Your task to perform on an android device: uninstall "Viber Messenger" Image 0: 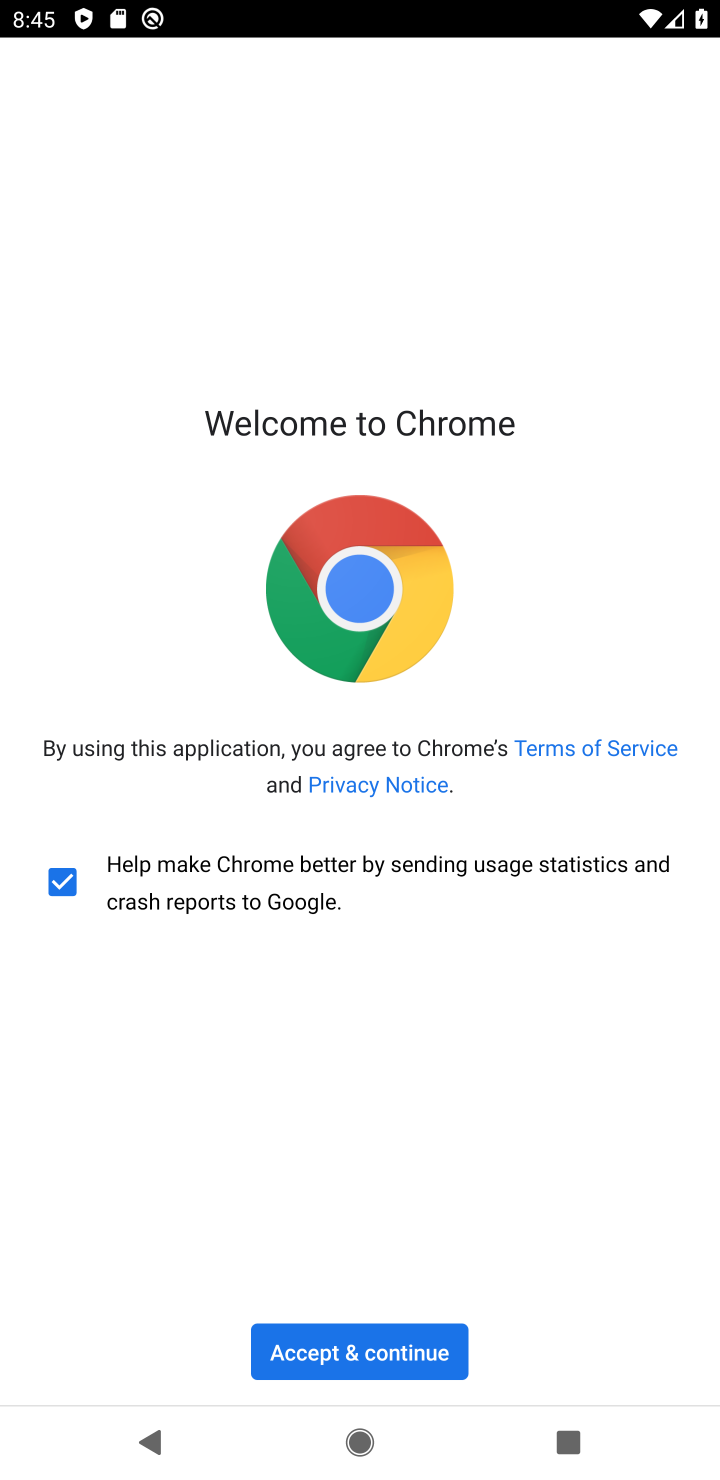
Step 0: press home button
Your task to perform on an android device: uninstall "Viber Messenger" Image 1: 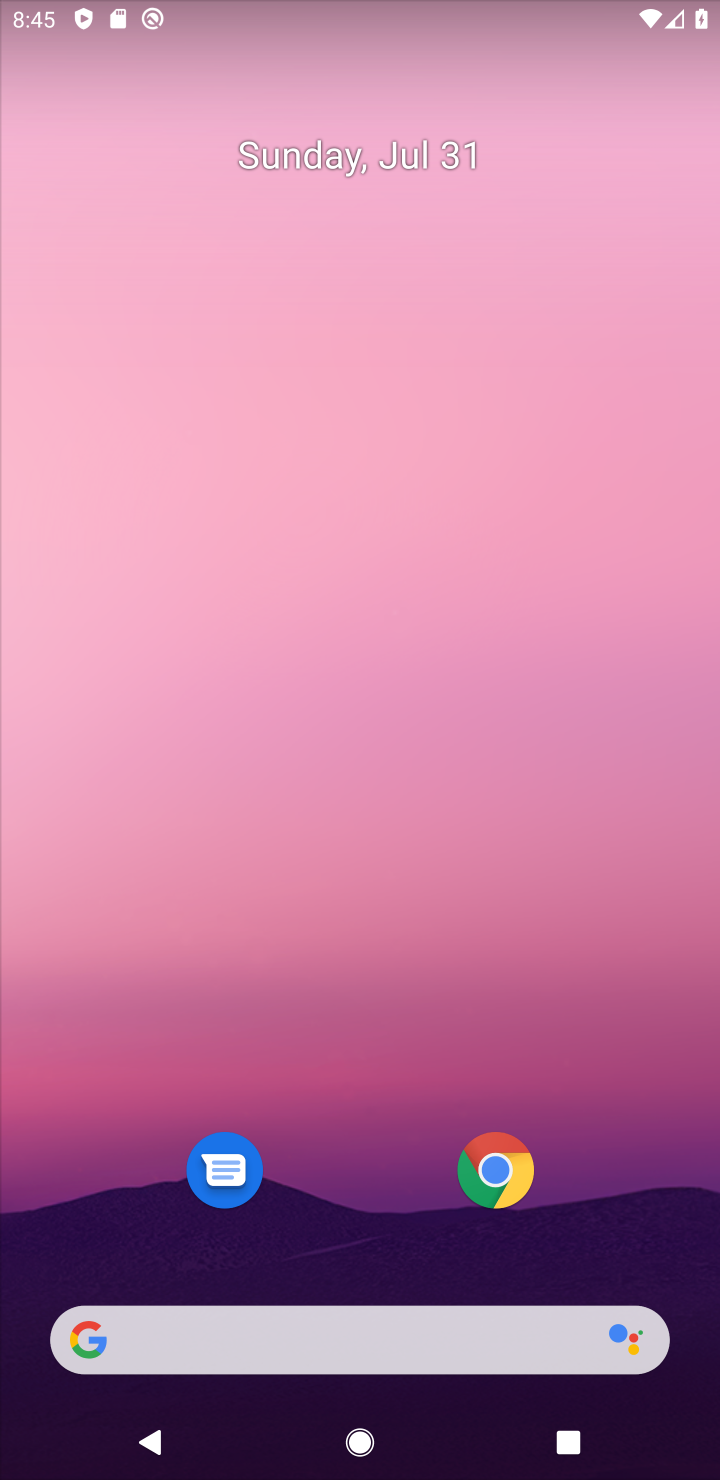
Step 1: drag from (501, 666) to (369, 32)
Your task to perform on an android device: uninstall "Viber Messenger" Image 2: 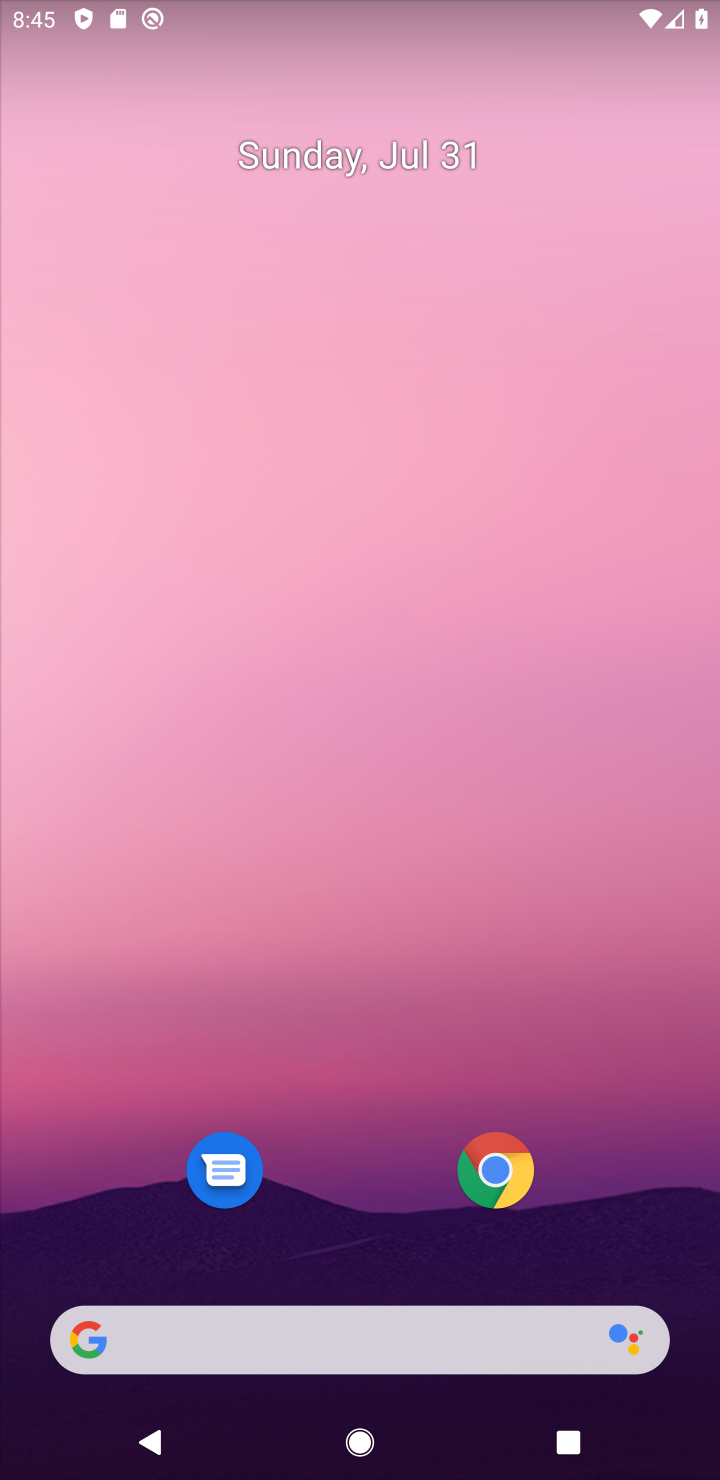
Step 2: drag from (715, 1269) to (468, 163)
Your task to perform on an android device: uninstall "Viber Messenger" Image 3: 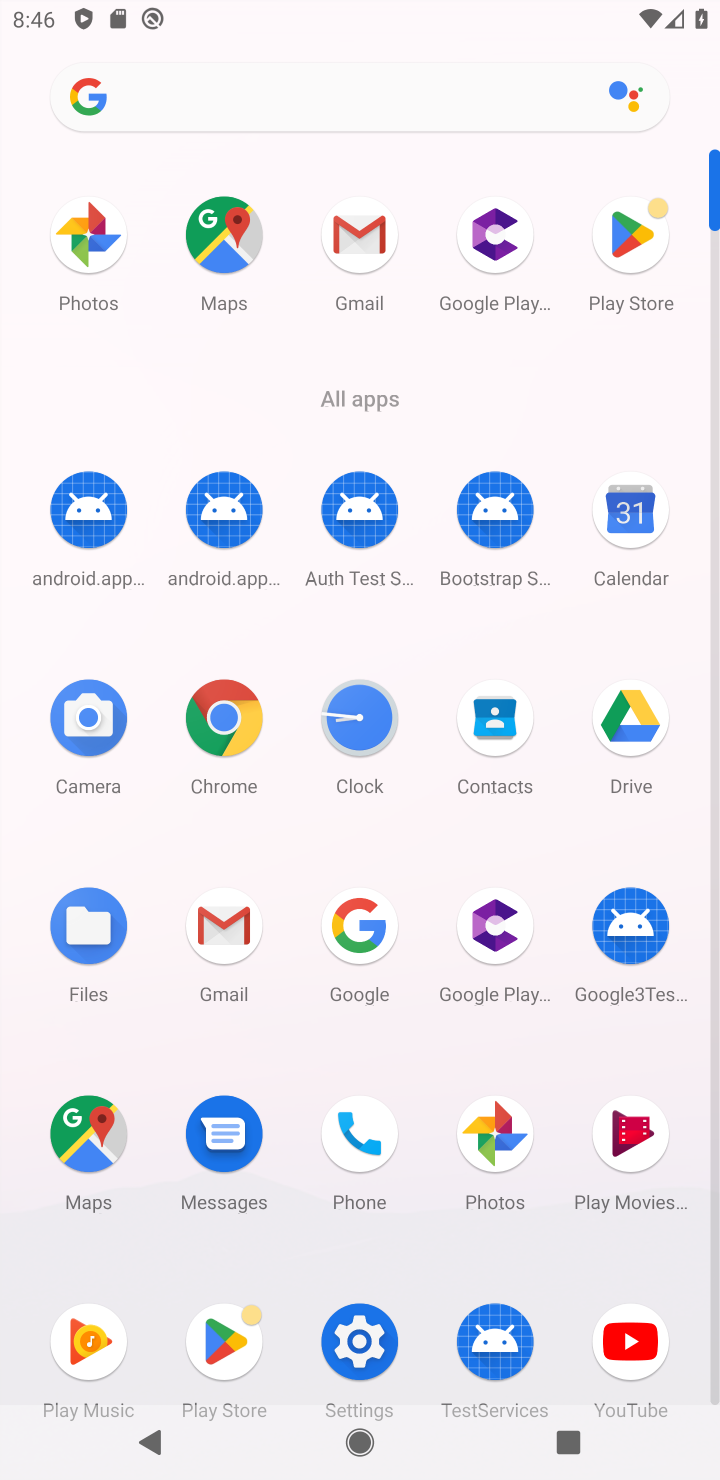
Step 3: click (614, 231)
Your task to perform on an android device: uninstall "Viber Messenger" Image 4: 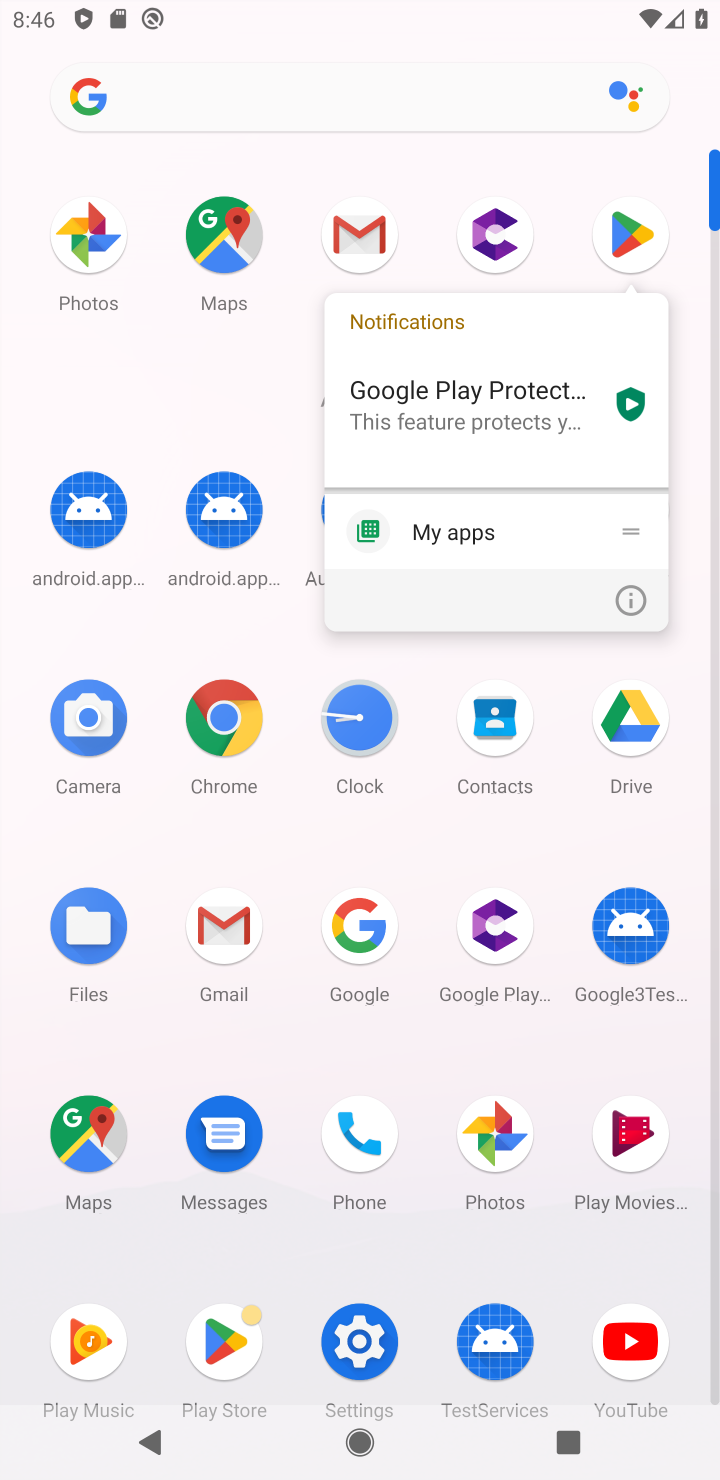
Step 4: click (616, 233)
Your task to perform on an android device: uninstall "Viber Messenger" Image 5: 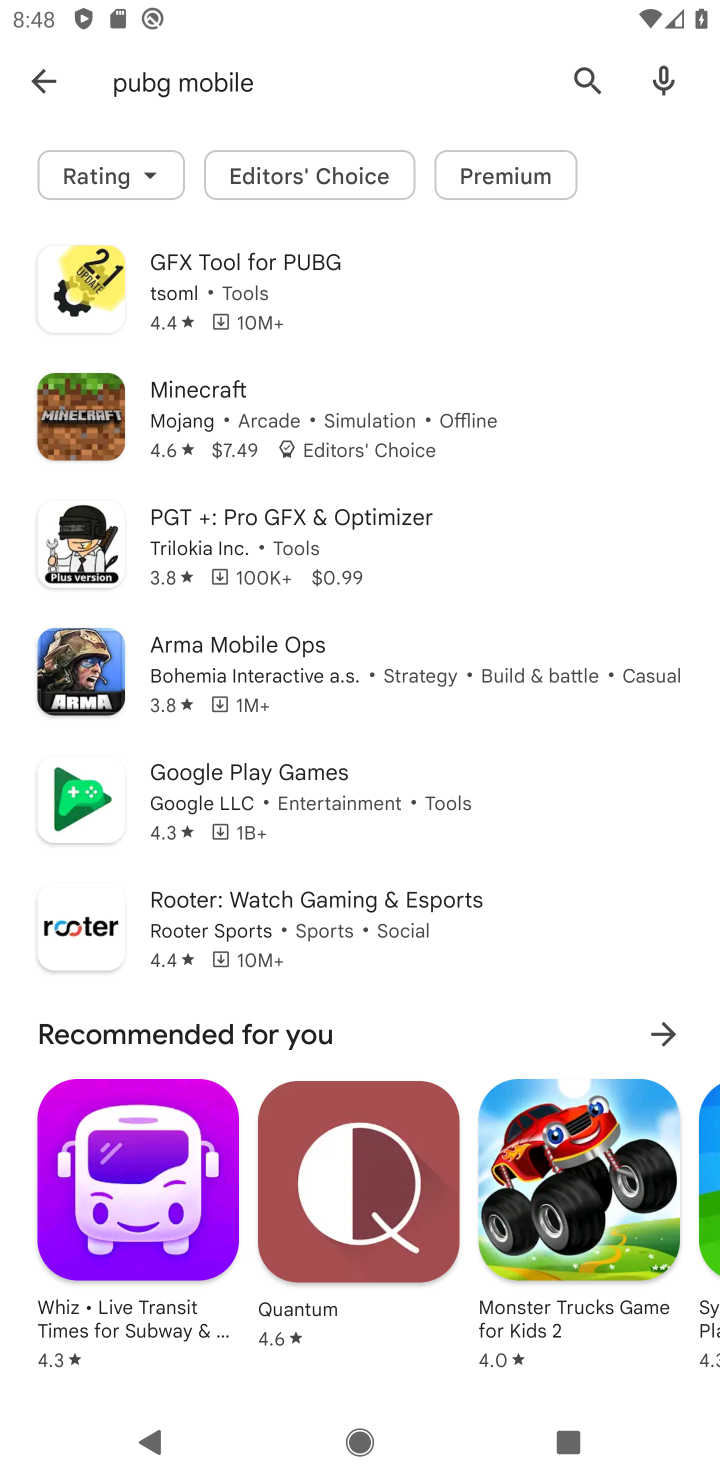
Step 5: press back button
Your task to perform on an android device: uninstall "Viber Messenger" Image 6: 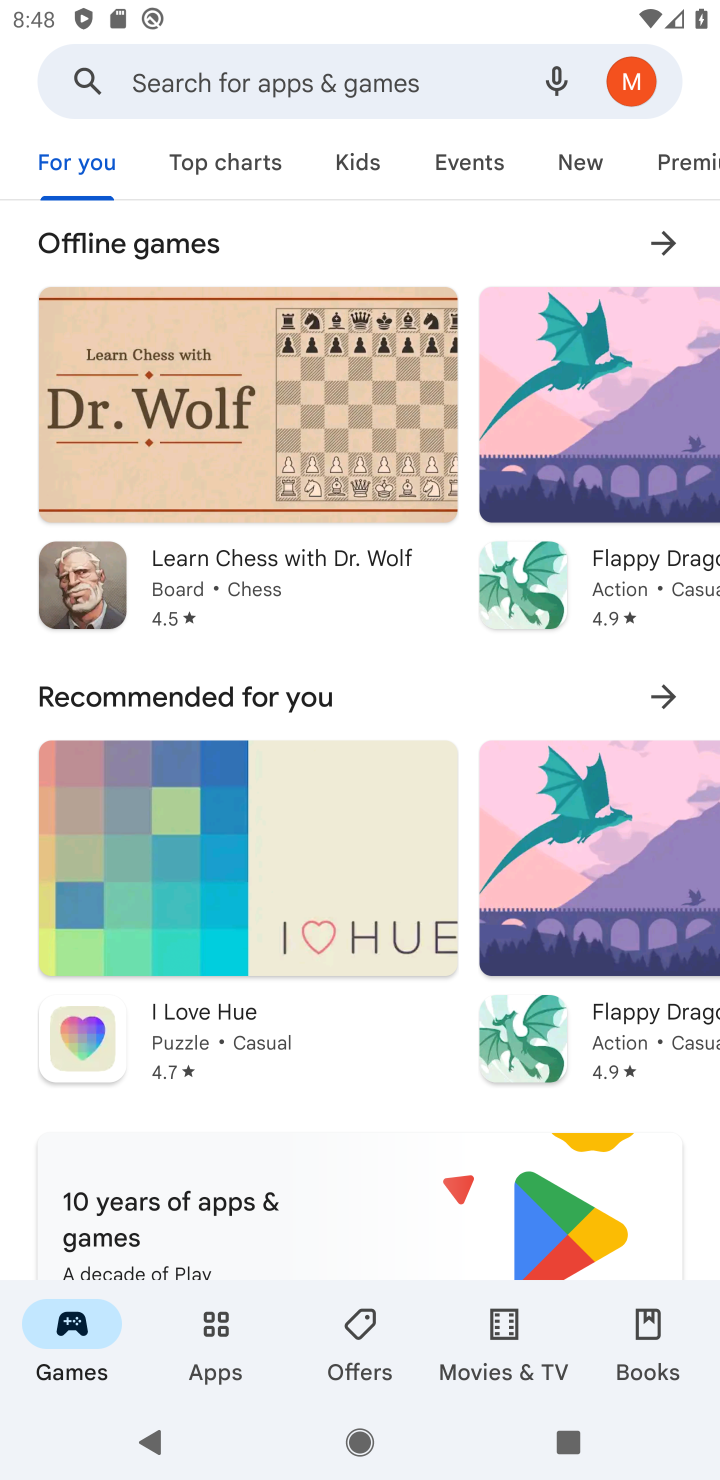
Step 6: click (214, 73)
Your task to perform on an android device: uninstall "Viber Messenger" Image 7: 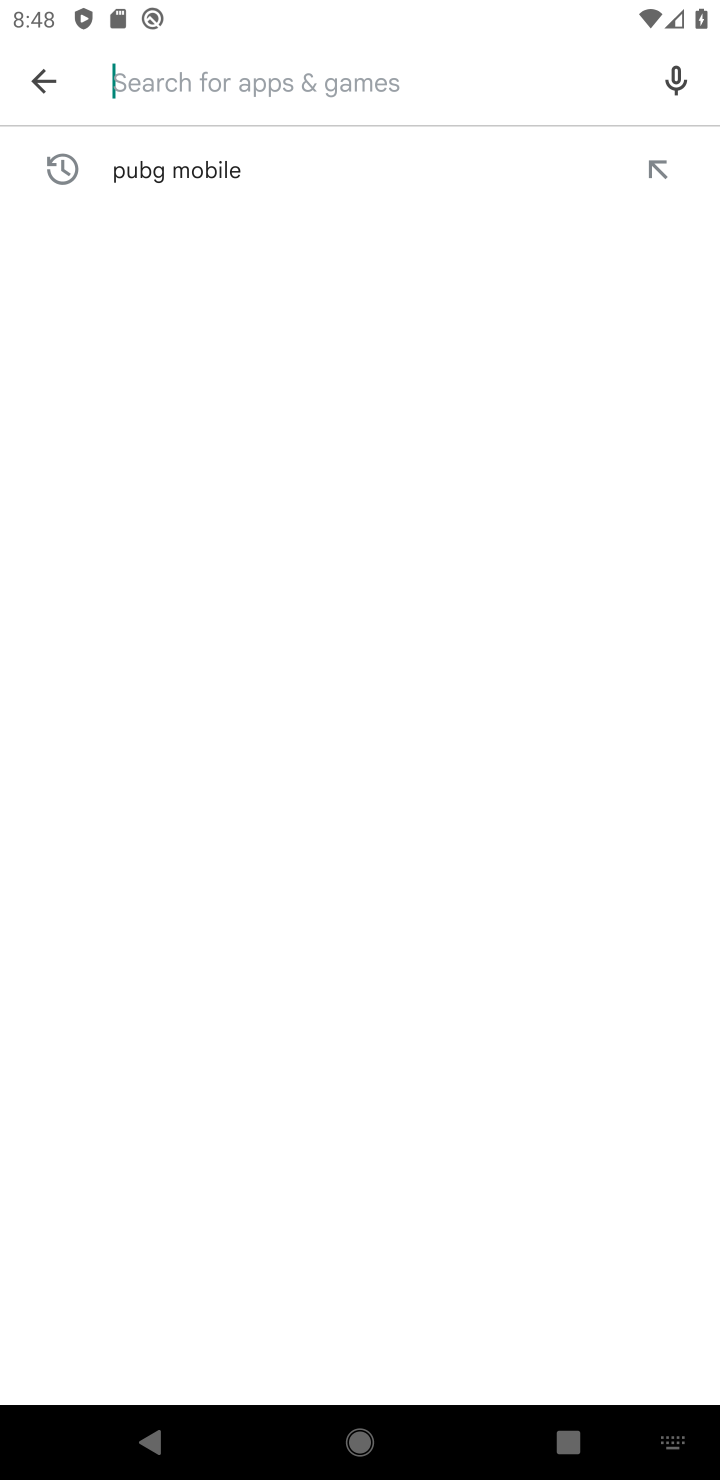
Step 7: type "Viber Messenger"
Your task to perform on an android device: uninstall "Viber Messenger" Image 8: 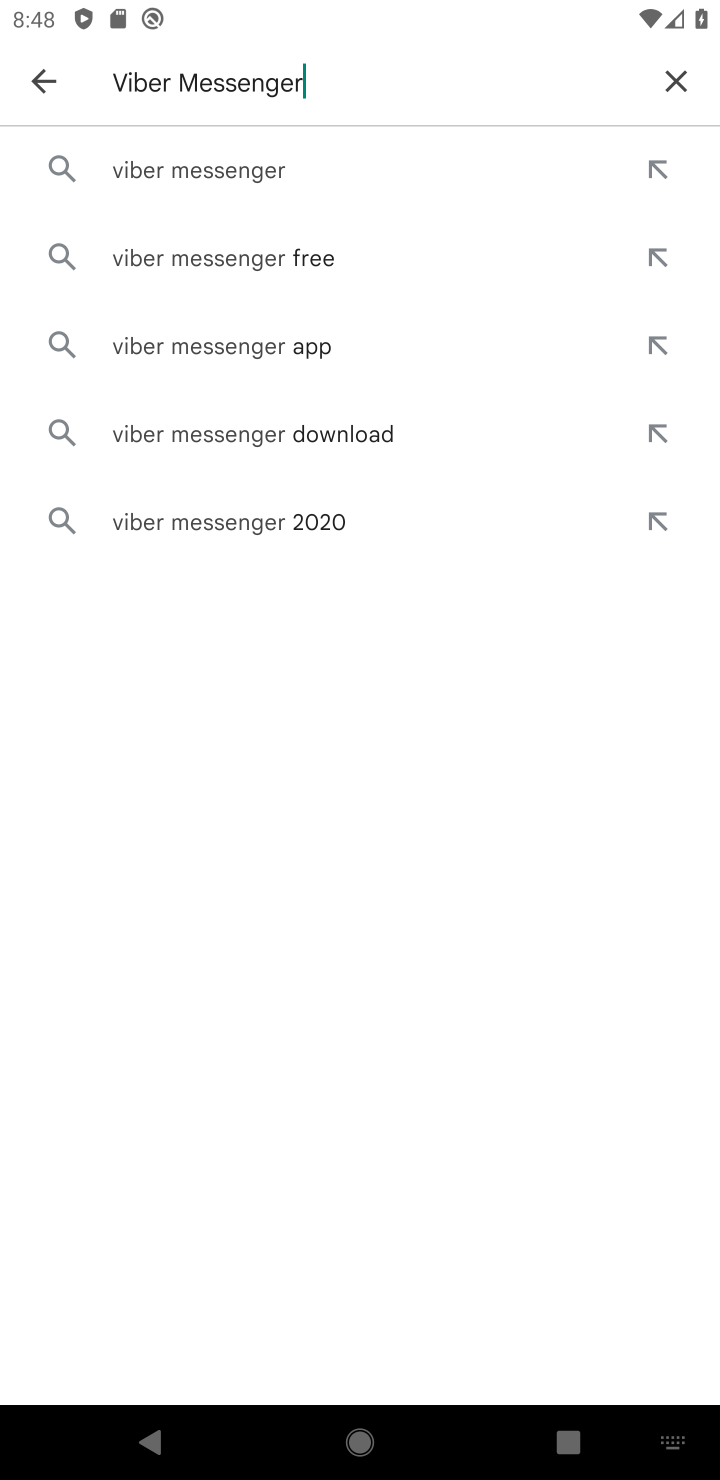
Step 8: click (298, 167)
Your task to perform on an android device: uninstall "Viber Messenger" Image 9: 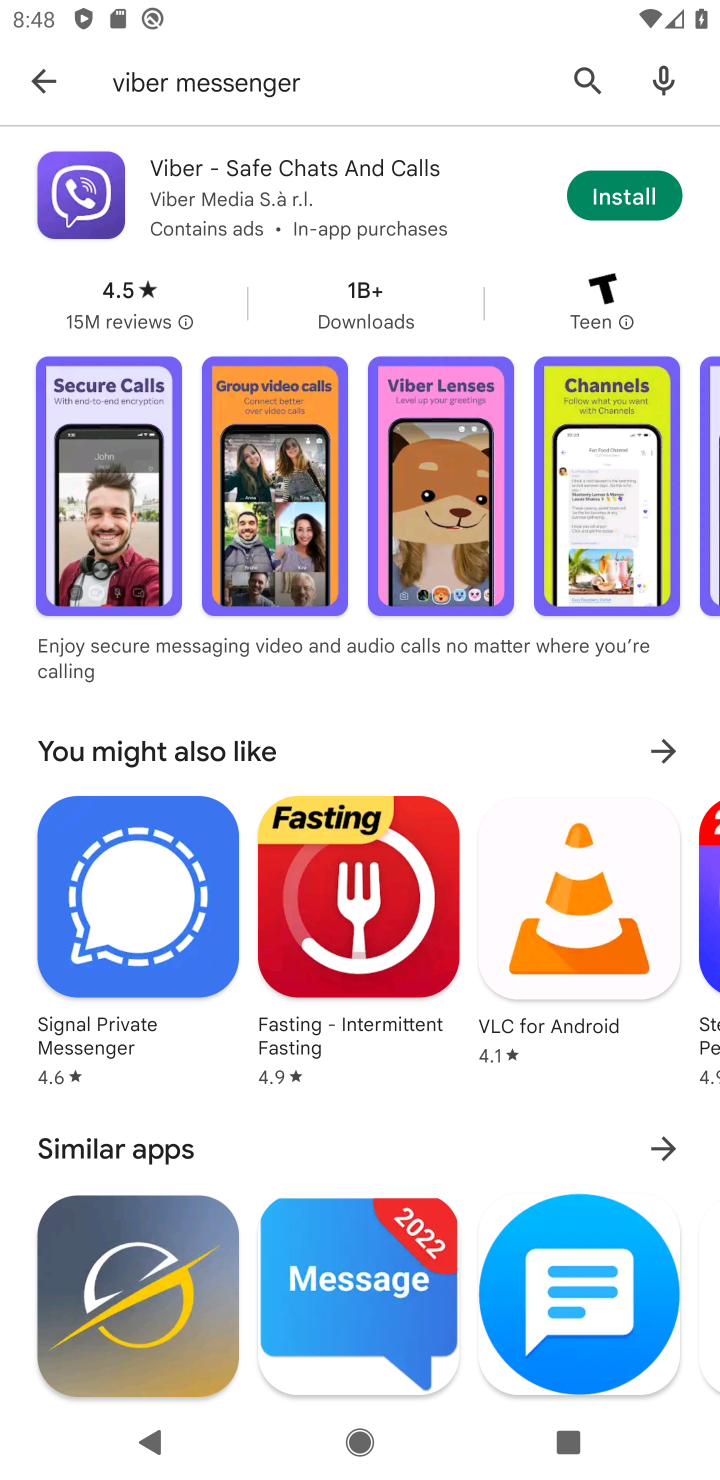
Step 9: task complete